Your task to perform on an android device: Open calendar and show me the second week of next month Image 0: 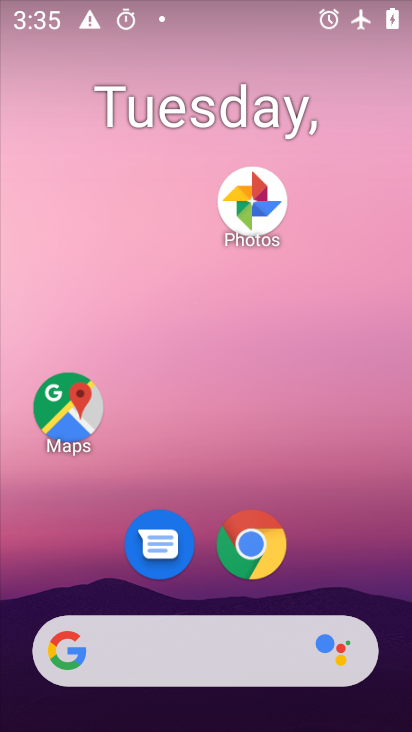
Step 0: drag from (385, 542) to (355, 66)
Your task to perform on an android device: Open calendar and show me the second week of next month Image 1: 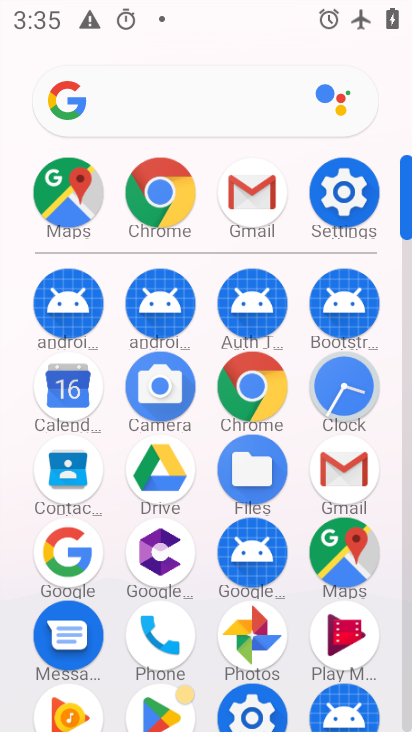
Step 1: click (76, 401)
Your task to perform on an android device: Open calendar and show me the second week of next month Image 2: 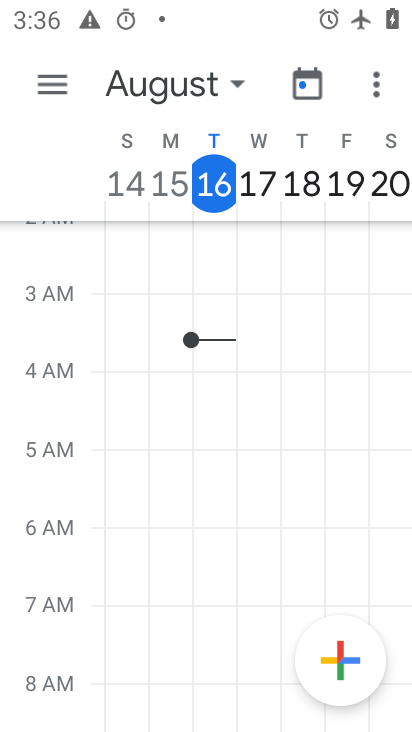
Step 2: click (149, 95)
Your task to perform on an android device: Open calendar and show me the second week of next month Image 3: 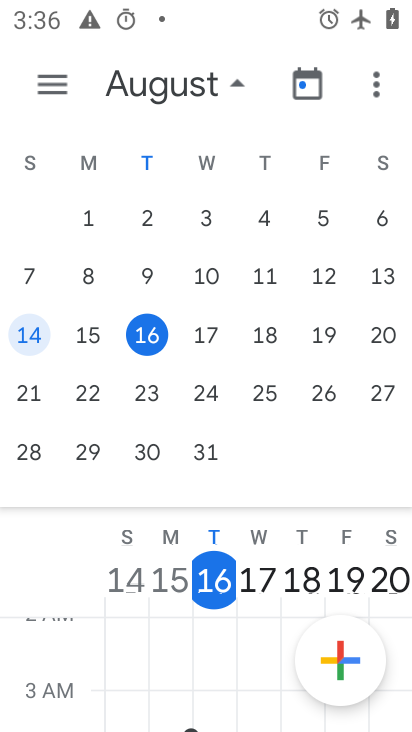
Step 3: drag from (372, 307) to (51, 263)
Your task to perform on an android device: Open calendar and show me the second week of next month Image 4: 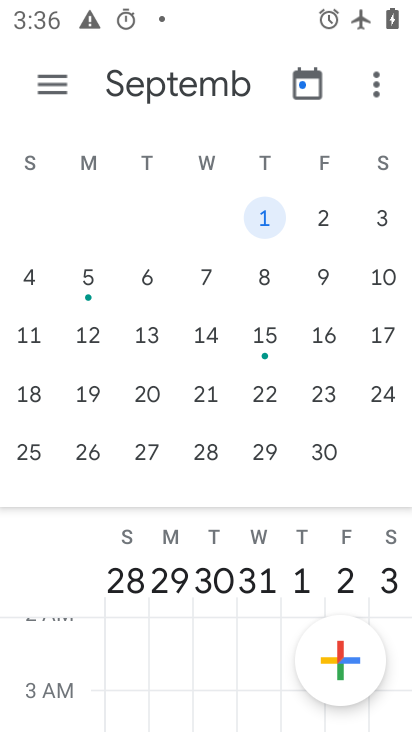
Step 4: click (93, 342)
Your task to perform on an android device: Open calendar and show me the second week of next month Image 5: 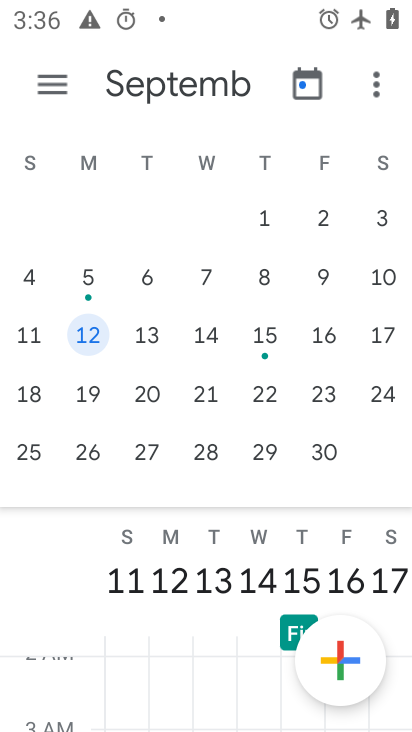
Step 5: task complete